Your task to perform on an android device: Go to sound settings Image 0: 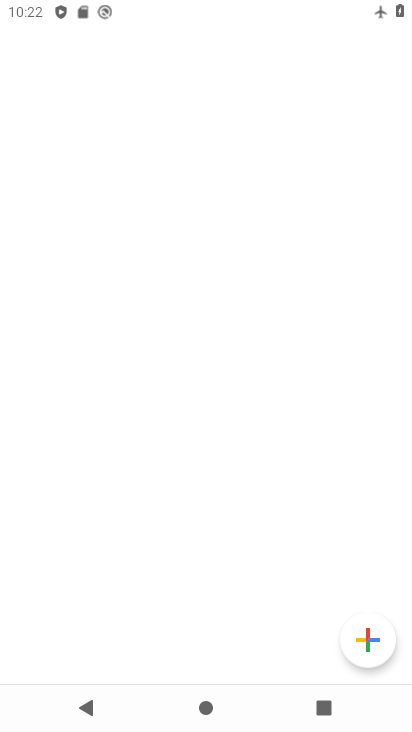
Step 0: drag from (232, 586) to (311, 0)
Your task to perform on an android device: Go to sound settings Image 1: 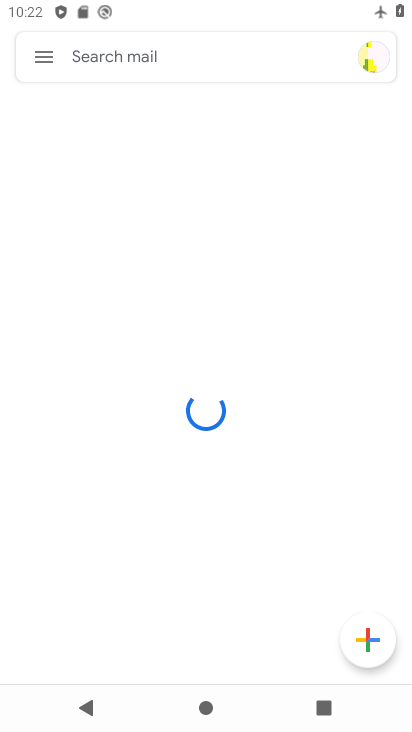
Step 1: press back button
Your task to perform on an android device: Go to sound settings Image 2: 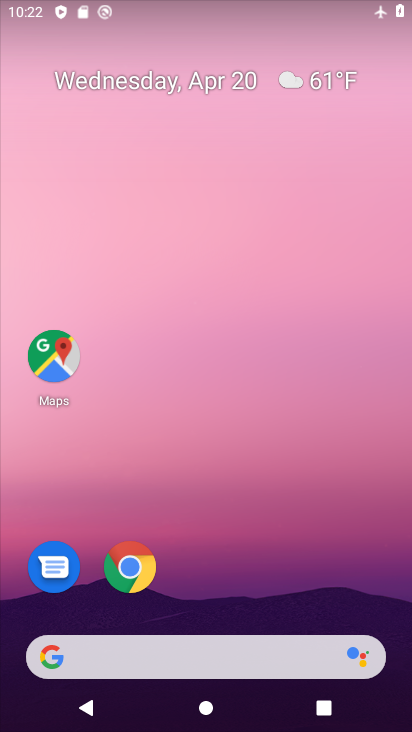
Step 2: drag from (251, 589) to (329, 1)
Your task to perform on an android device: Go to sound settings Image 3: 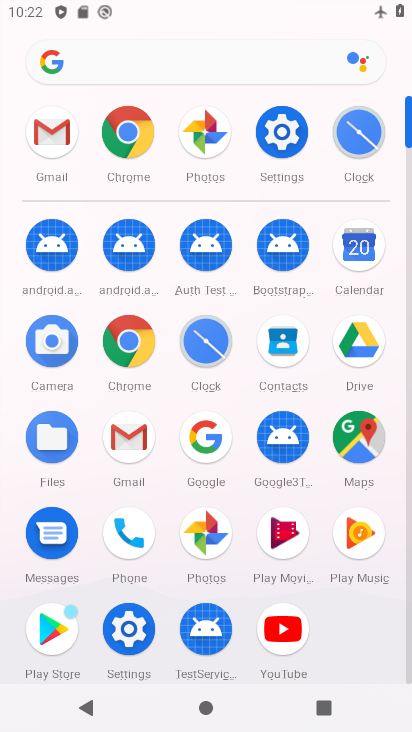
Step 3: click (278, 129)
Your task to perform on an android device: Go to sound settings Image 4: 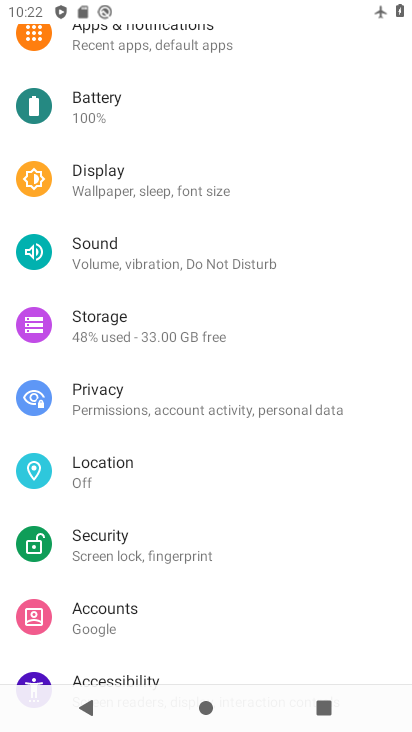
Step 4: click (98, 249)
Your task to perform on an android device: Go to sound settings Image 5: 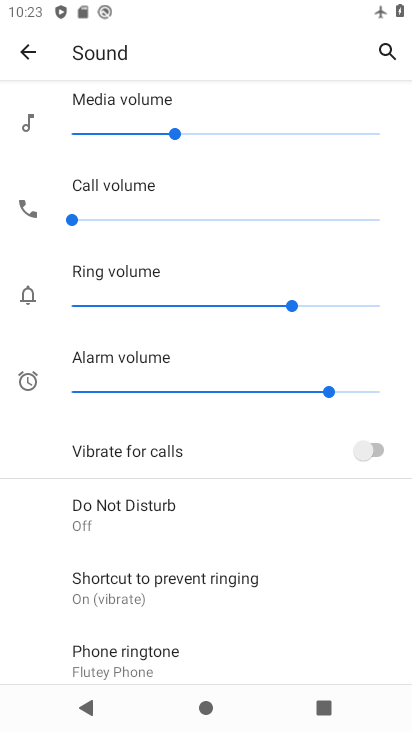
Step 5: task complete